Your task to perform on an android device: all mails in gmail Image 0: 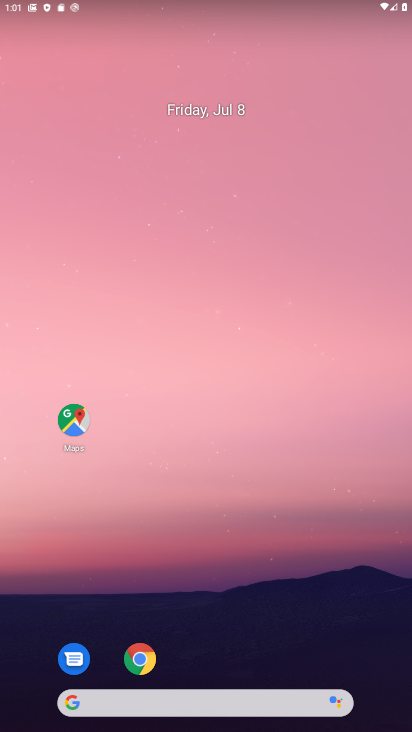
Step 0: drag from (316, 563) to (265, 158)
Your task to perform on an android device: all mails in gmail Image 1: 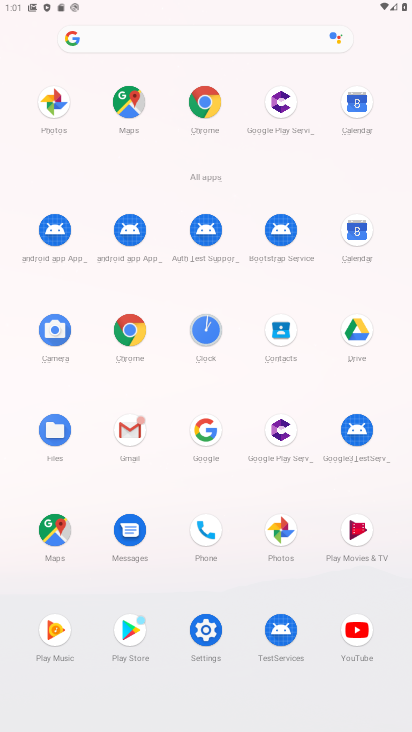
Step 1: click (128, 428)
Your task to perform on an android device: all mails in gmail Image 2: 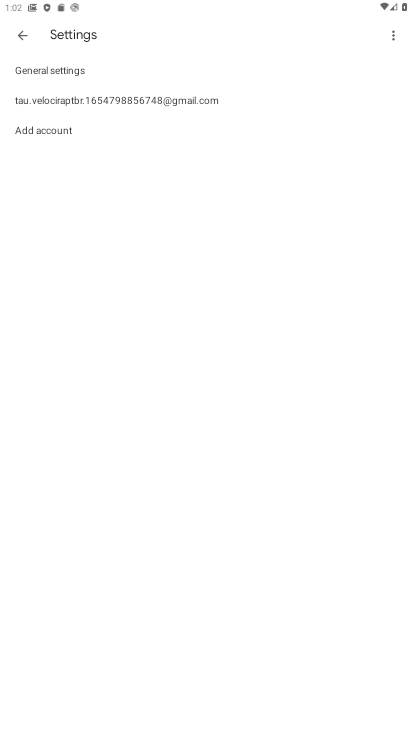
Step 2: click (23, 35)
Your task to perform on an android device: all mails in gmail Image 3: 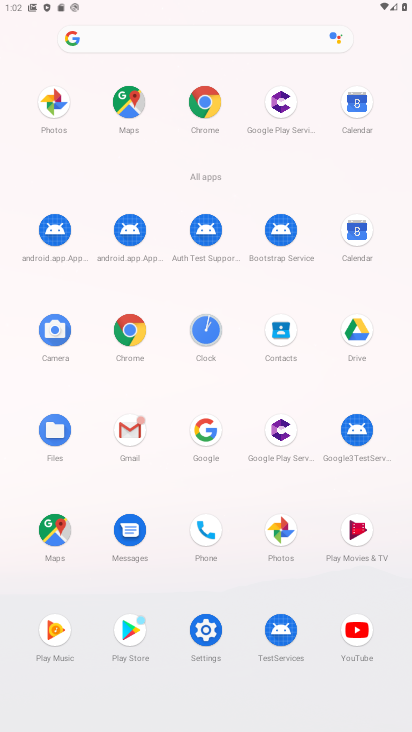
Step 3: click (132, 427)
Your task to perform on an android device: all mails in gmail Image 4: 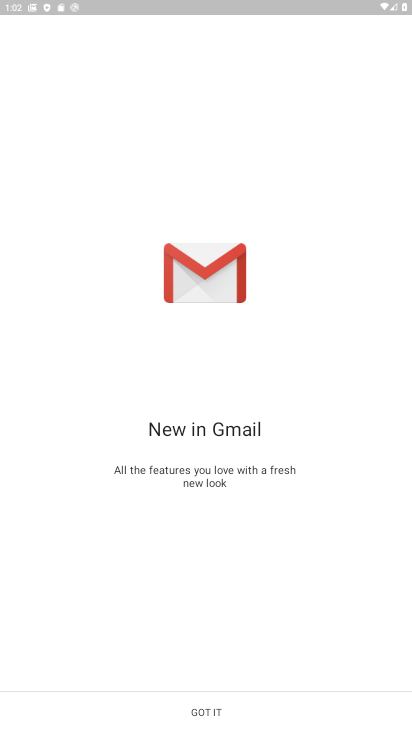
Step 4: click (275, 708)
Your task to perform on an android device: all mails in gmail Image 5: 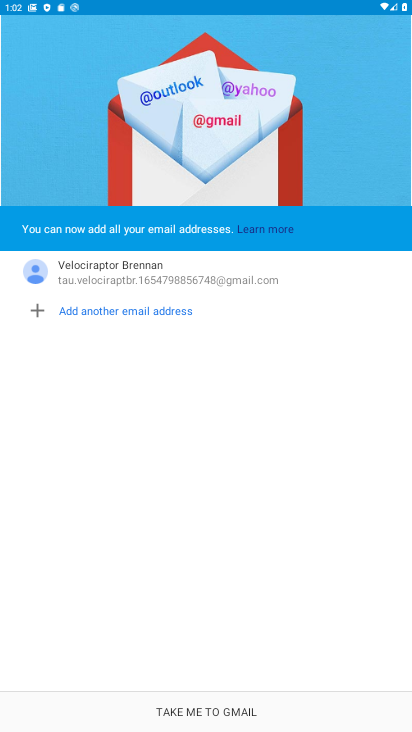
Step 5: click (275, 708)
Your task to perform on an android device: all mails in gmail Image 6: 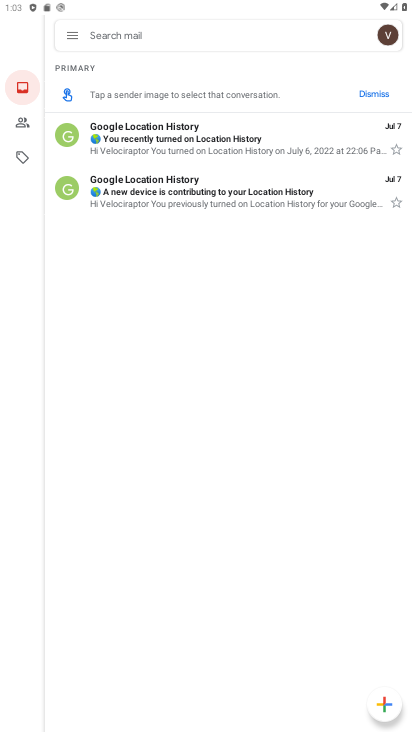
Step 6: task complete